Your task to perform on an android device: Check the news Image 0: 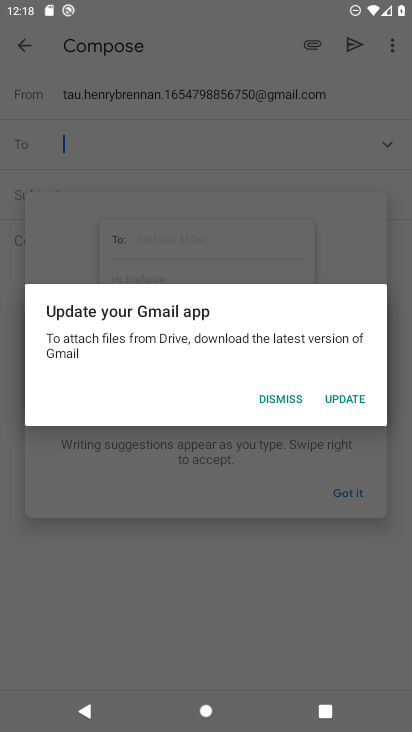
Step 0: click (162, 665)
Your task to perform on an android device: Check the news Image 1: 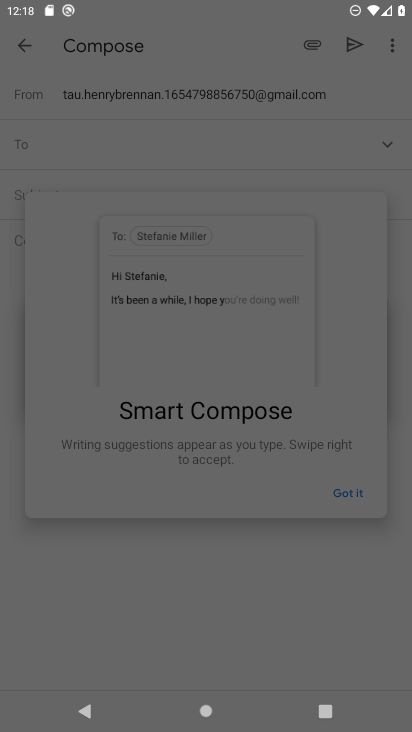
Step 1: press home button
Your task to perform on an android device: Check the news Image 2: 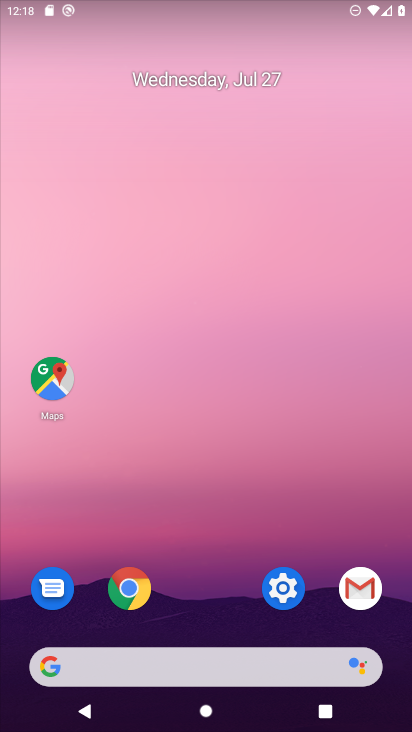
Step 2: click (209, 664)
Your task to perform on an android device: Check the news Image 3: 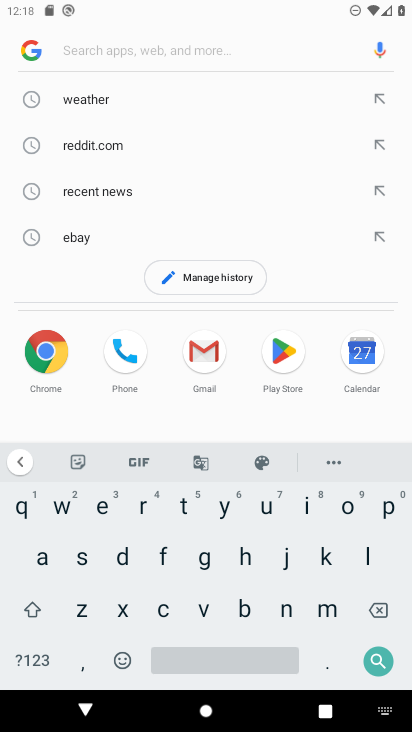
Step 3: click (279, 607)
Your task to perform on an android device: Check the news Image 4: 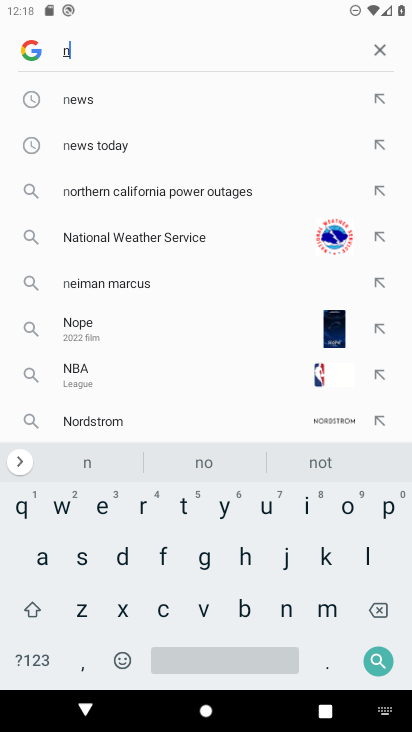
Step 4: click (131, 99)
Your task to perform on an android device: Check the news Image 5: 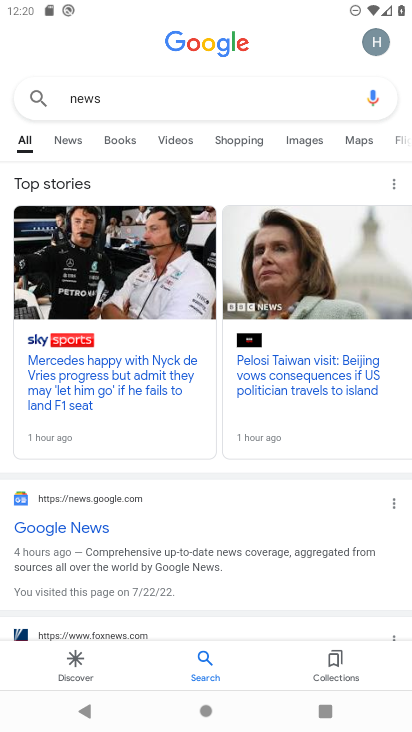
Step 5: task complete